Your task to perform on an android device: change your default location settings in chrome Image 0: 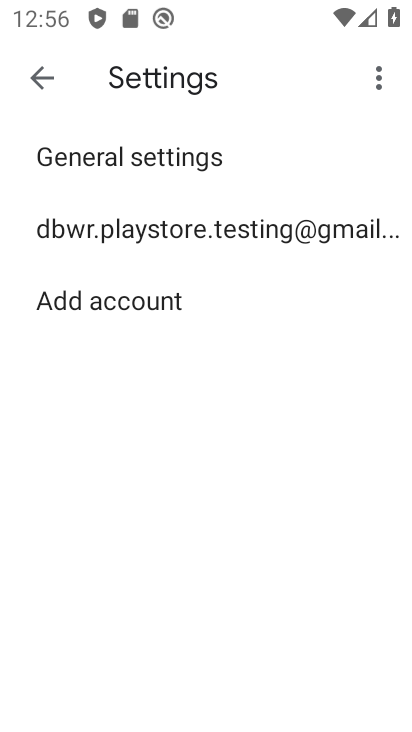
Step 0: drag from (222, 625) to (285, 185)
Your task to perform on an android device: change your default location settings in chrome Image 1: 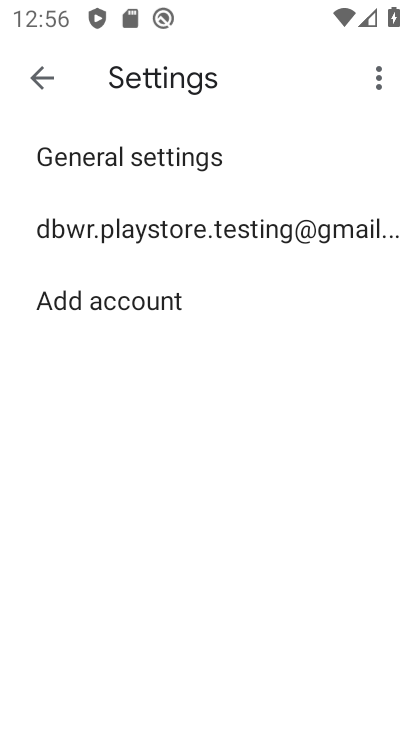
Step 1: press home button
Your task to perform on an android device: change your default location settings in chrome Image 2: 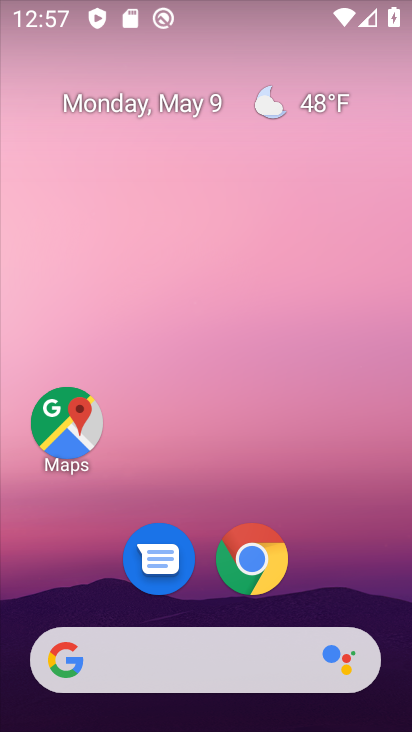
Step 2: drag from (211, 564) to (282, 233)
Your task to perform on an android device: change your default location settings in chrome Image 3: 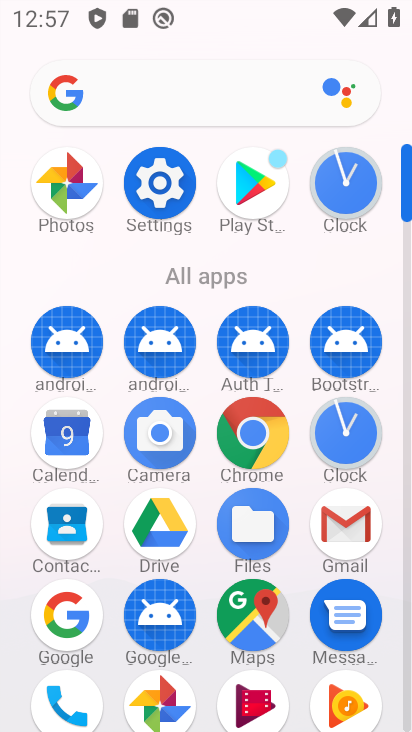
Step 3: click (249, 428)
Your task to perform on an android device: change your default location settings in chrome Image 4: 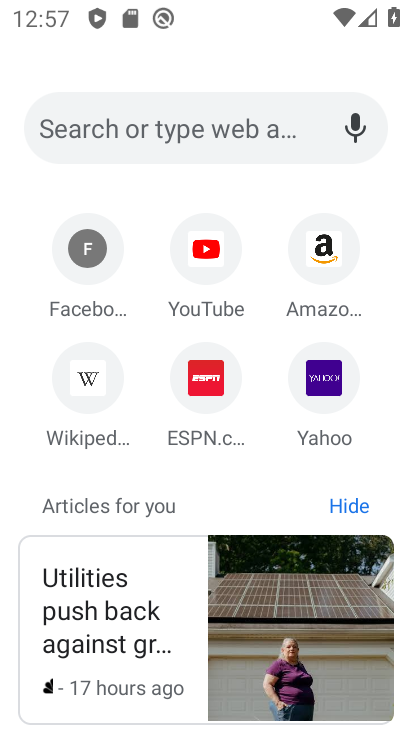
Step 4: drag from (267, 510) to (302, 95)
Your task to perform on an android device: change your default location settings in chrome Image 5: 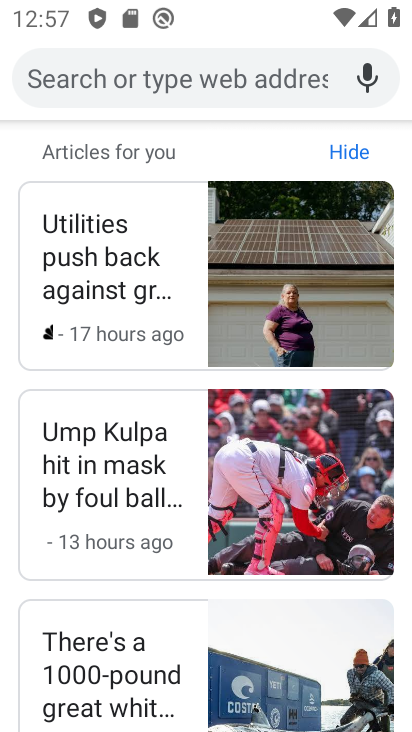
Step 5: drag from (243, 608) to (279, 346)
Your task to perform on an android device: change your default location settings in chrome Image 6: 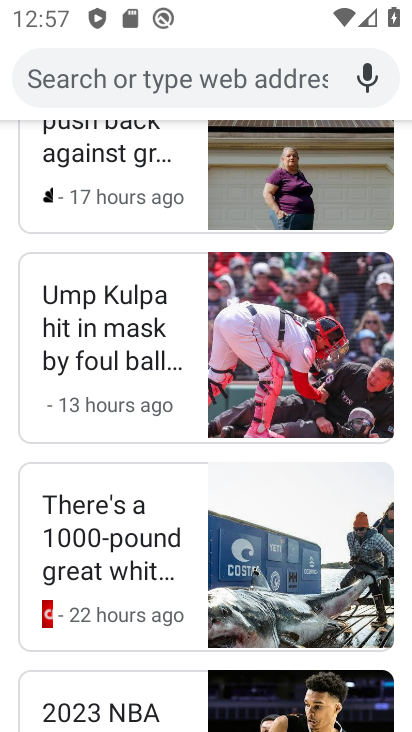
Step 6: drag from (199, 677) to (227, 359)
Your task to perform on an android device: change your default location settings in chrome Image 7: 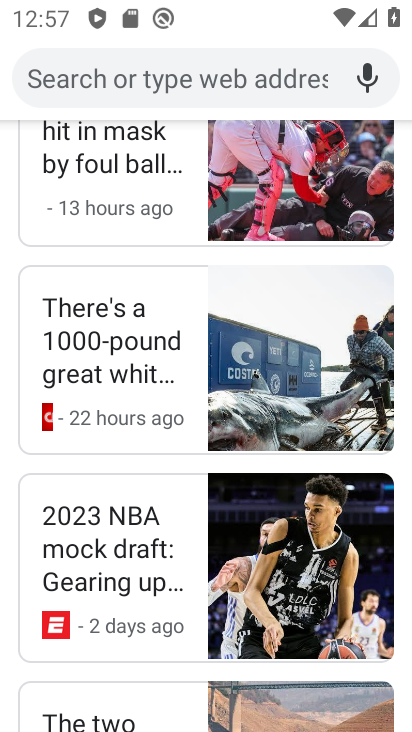
Step 7: drag from (211, 236) to (225, 665)
Your task to perform on an android device: change your default location settings in chrome Image 8: 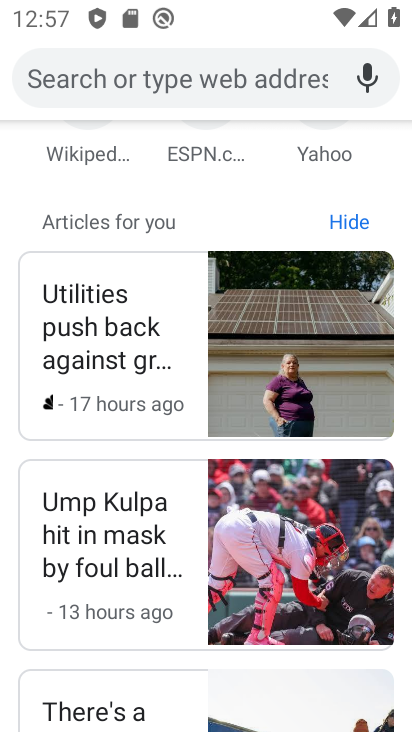
Step 8: drag from (218, 244) to (259, 679)
Your task to perform on an android device: change your default location settings in chrome Image 9: 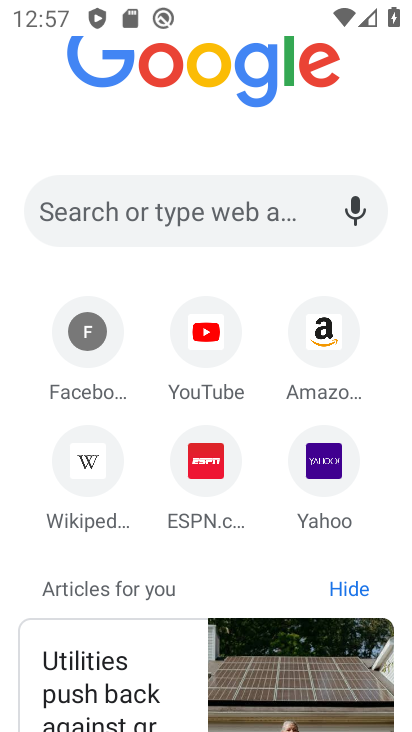
Step 9: drag from (255, 279) to (271, 617)
Your task to perform on an android device: change your default location settings in chrome Image 10: 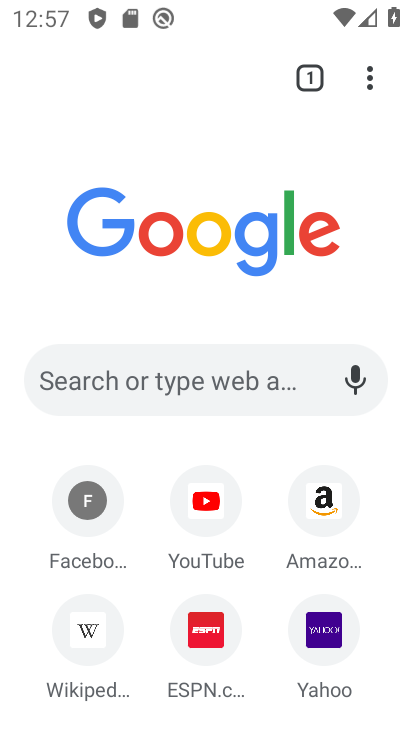
Step 10: drag from (369, 71) to (138, 622)
Your task to perform on an android device: change your default location settings in chrome Image 11: 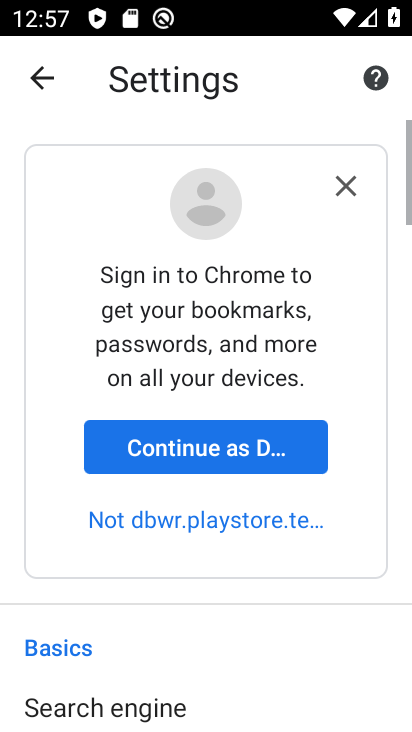
Step 11: drag from (203, 598) to (292, 94)
Your task to perform on an android device: change your default location settings in chrome Image 12: 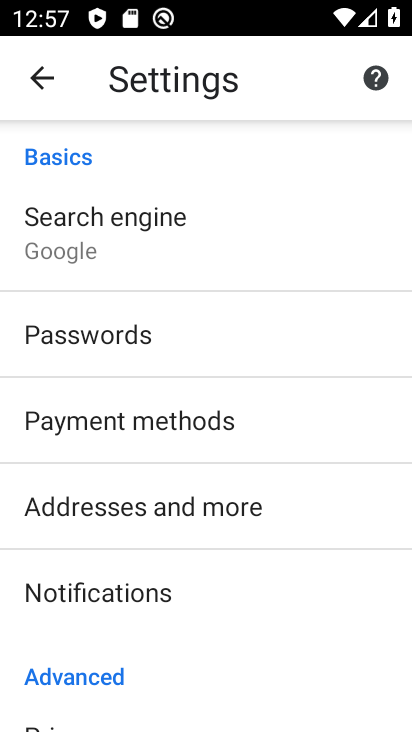
Step 12: drag from (156, 625) to (229, 217)
Your task to perform on an android device: change your default location settings in chrome Image 13: 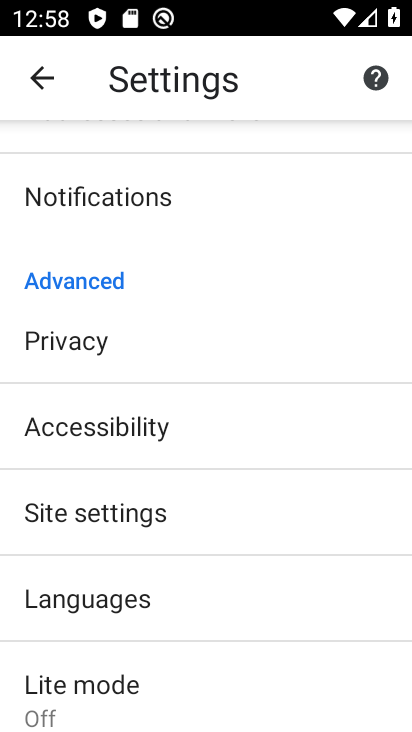
Step 13: click (175, 517)
Your task to perform on an android device: change your default location settings in chrome Image 14: 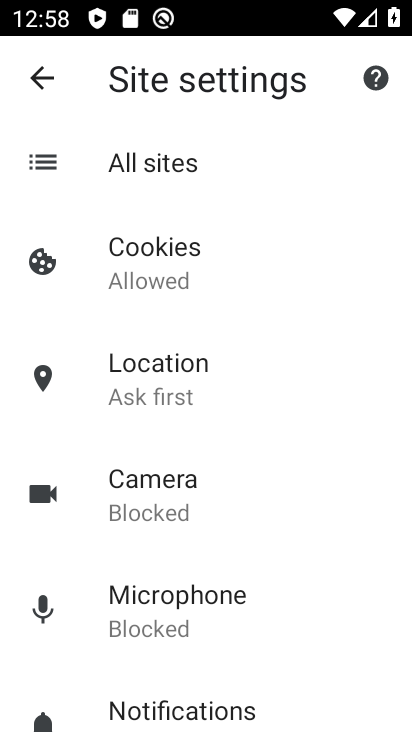
Step 14: click (188, 356)
Your task to perform on an android device: change your default location settings in chrome Image 15: 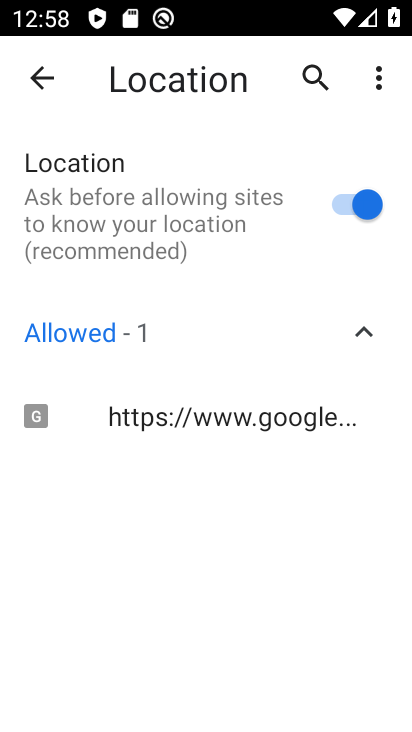
Step 15: drag from (242, 636) to (246, 350)
Your task to perform on an android device: change your default location settings in chrome Image 16: 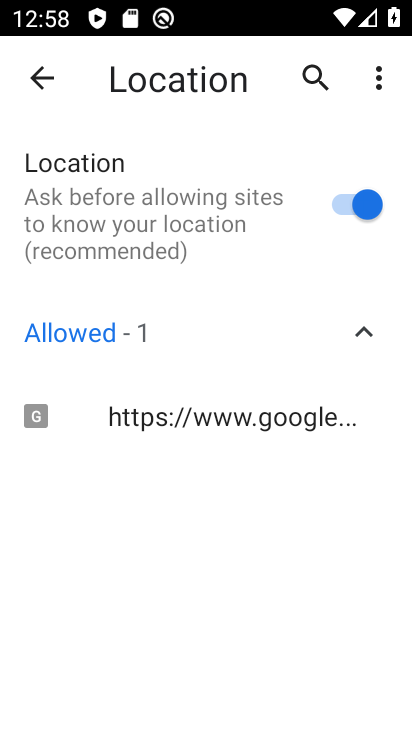
Step 16: drag from (237, 582) to (240, 312)
Your task to perform on an android device: change your default location settings in chrome Image 17: 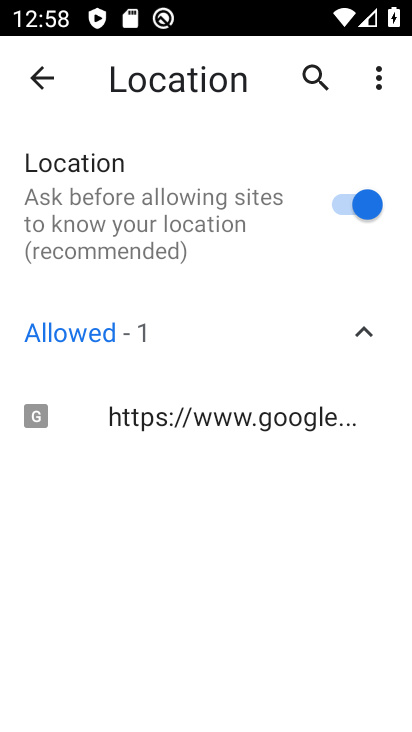
Step 17: drag from (168, 632) to (198, 344)
Your task to perform on an android device: change your default location settings in chrome Image 18: 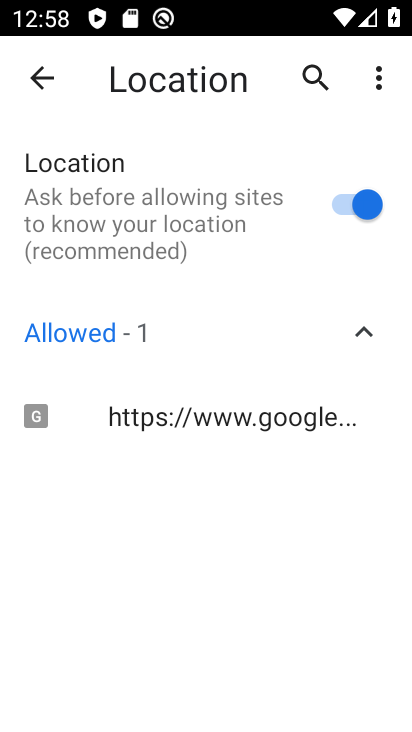
Step 18: click (366, 203)
Your task to perform on an android device: change your default location settings in chrome Image 19: 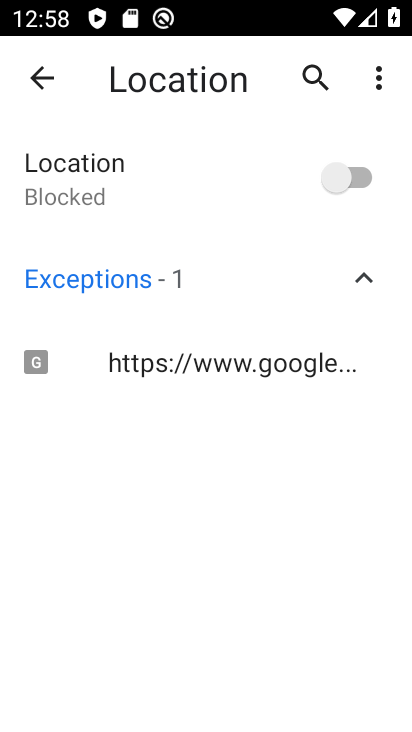
Step 19: task complete